Your task to perform on an android device: Open my contact list Image 0: 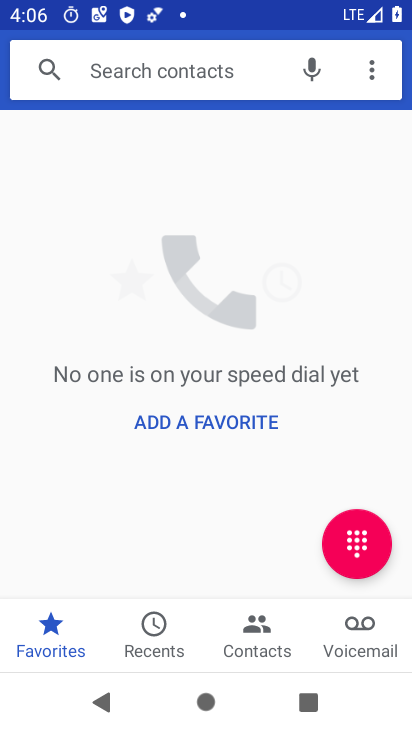
Step 0: press home button
Your task to perform on an android device: Open my contact list Image 1: 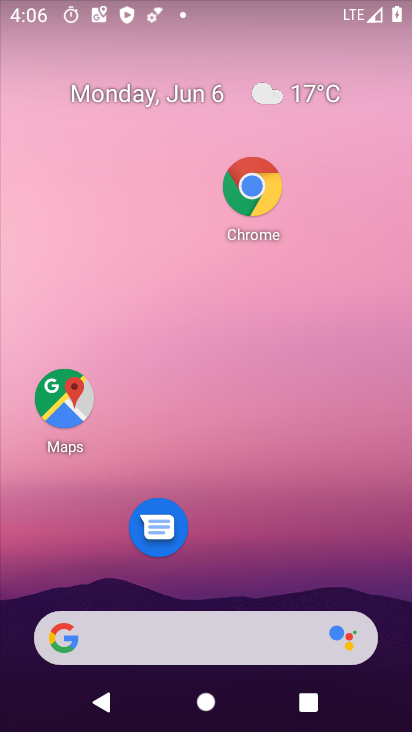
Step 1: drag from (228, 619) to (208, 169)
Your task to perform on an android device: Open my contact list Image 2: 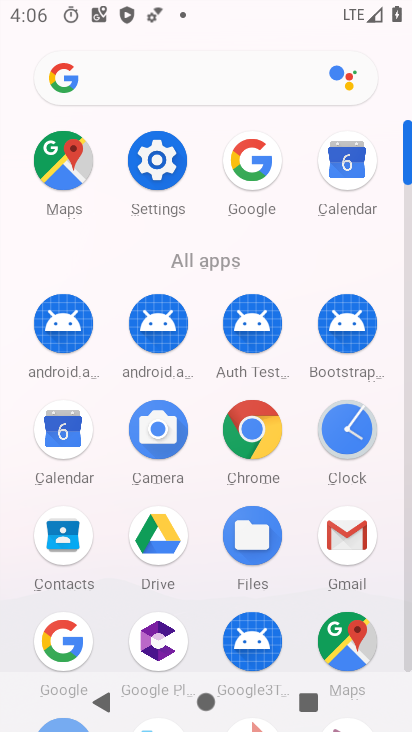
Step 2: click (66, 537)
Your task to perform on an android device: Open my contact list Image 3: 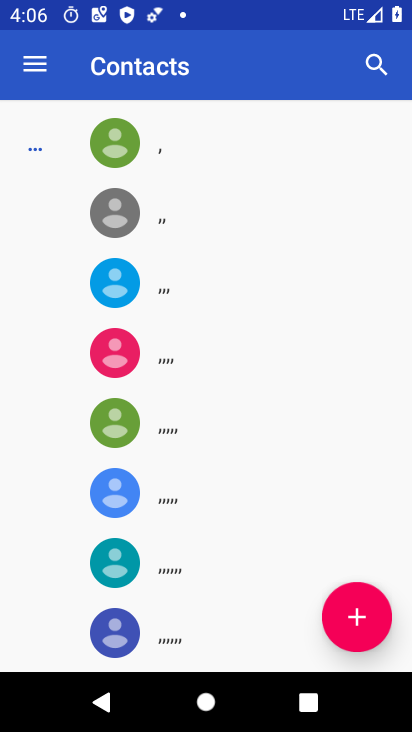
Step 3: task complete